Your task to perform on an android device: toggle location history Image 0: 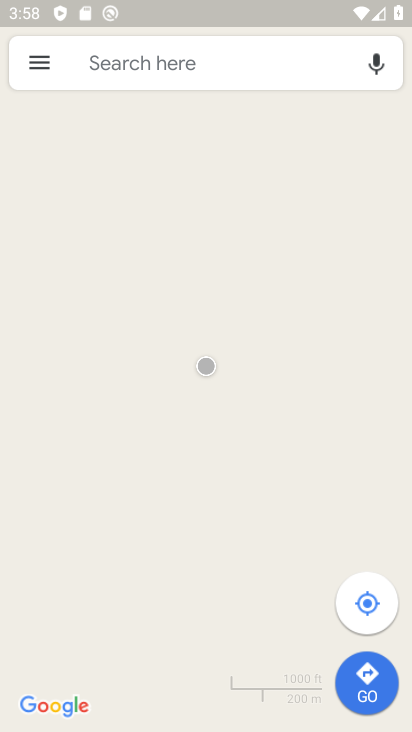
Step 0: press home button
Your task to perform on an android device: toggle location history Image 1: 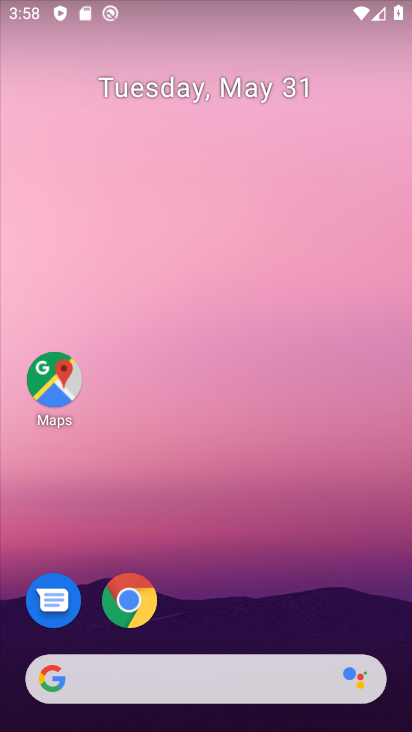
Step 1: drag from (257, 599) to (229, 144)
Your task to perform on an android device: toggle location history Image 2: 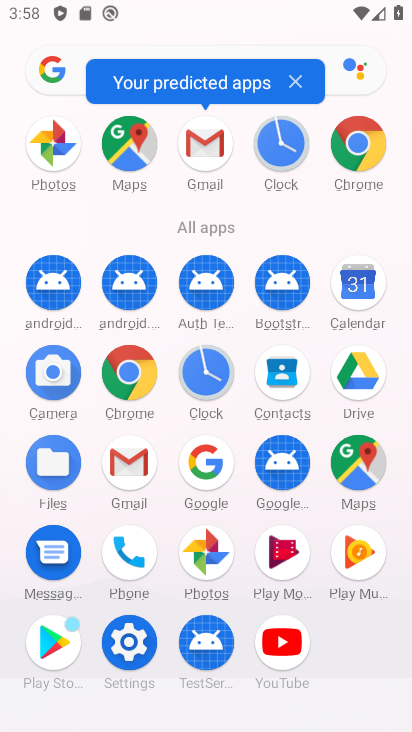
Step 2: click (132, 641)
Your task to perform on an android device: toggle location history Image 3: 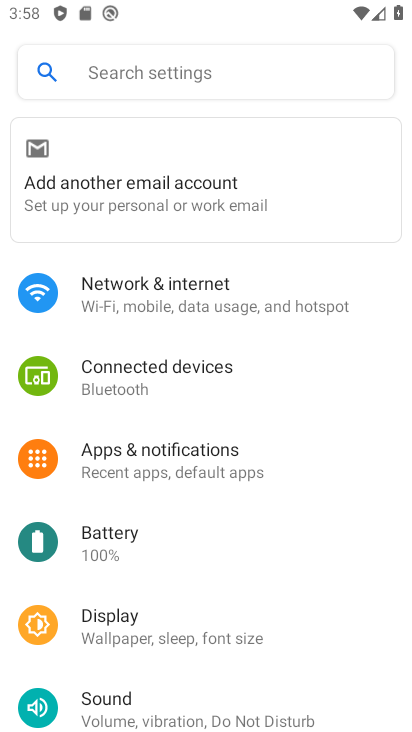
Step 3: drag from (154, 522) to (242, 377)
Your task to perform on an android device: toggle location history Image 4: 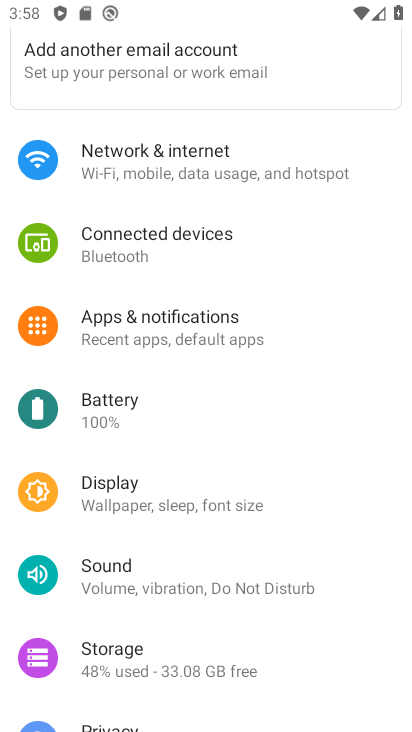
Step 4: drag from (174, 535) to (242, 351)
Your task to perform on an android device: toggle location history Image 5: 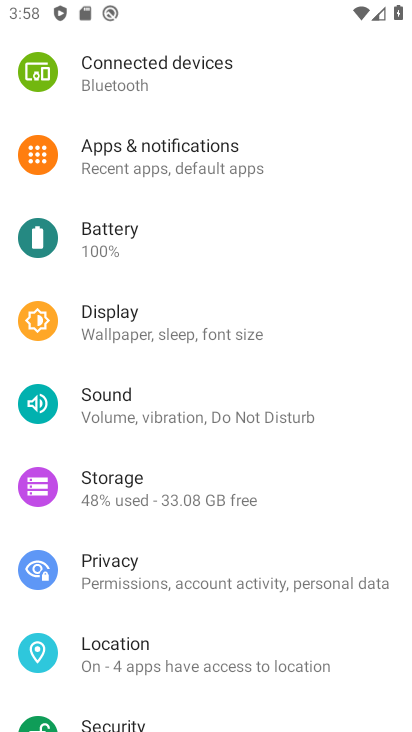
Step 5: click (129, 651)
Your task to perform on an android device: toggle location history Image 6: 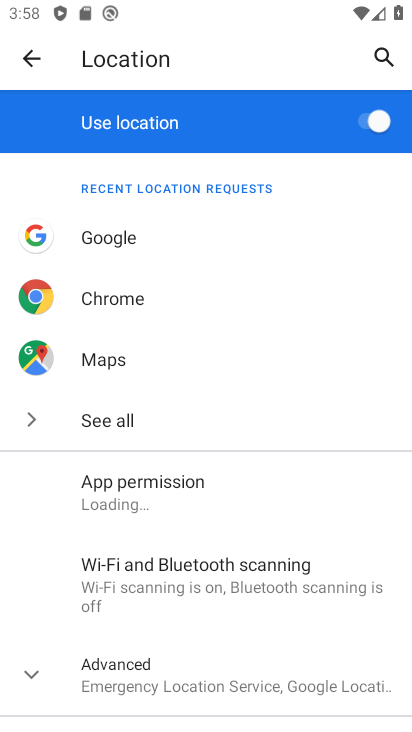
Step 6: click (131, 681)
Your task to perform on an android device: toggle location history Image 7: 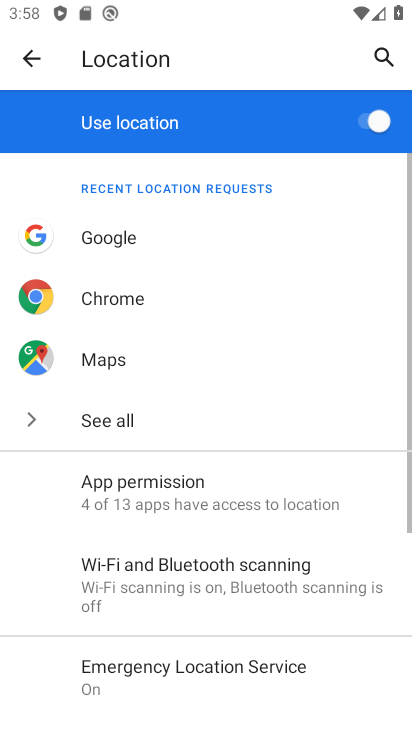
Step 7: drag from (165, 644) to (292, 387)
Your task to perform on an android device: toggle location history Image 8: 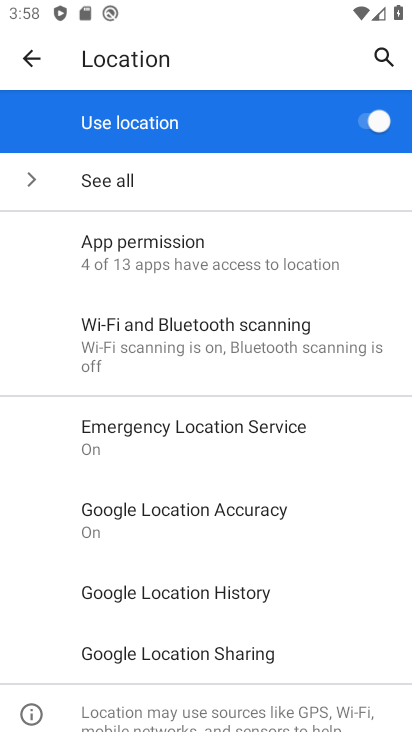
Step 8: click (214, 597)
Your task to perform on an android device: toggle location history Image 9: 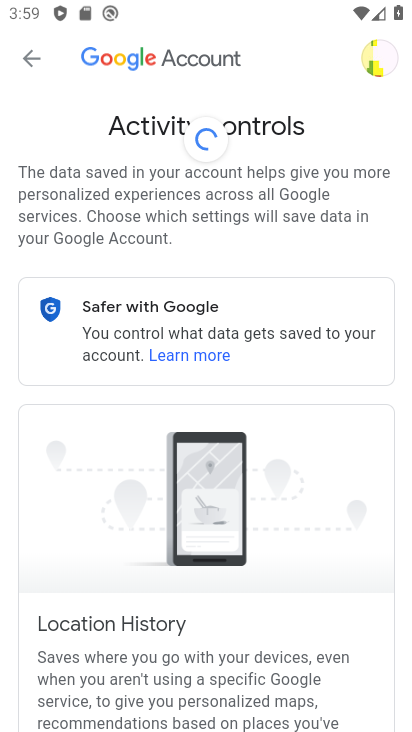
Step 9: drag from (139, 557) to (292, 342)
Your task to perform on an android device: toggle location history Image 10: 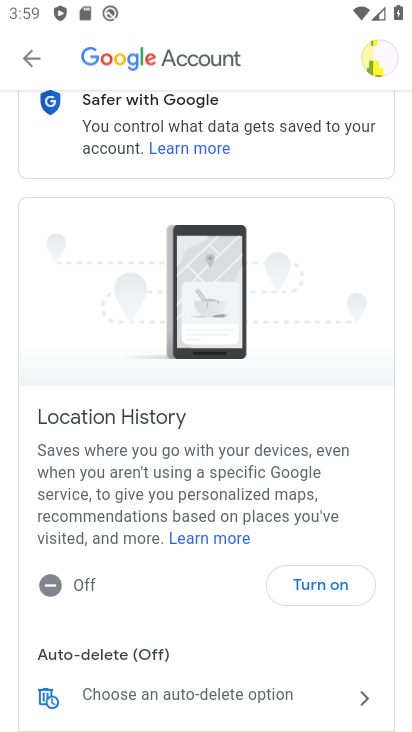
Step 10: click (313, 585)
Your task to perform on an android device: toggle location history Image 11: 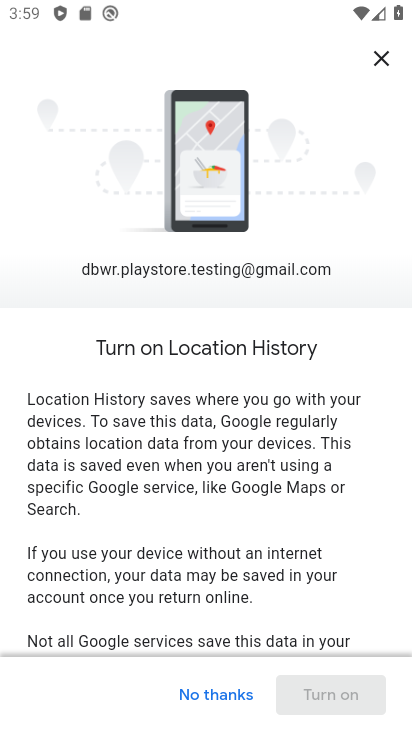
Step 11: drag from (262, 599) to (287, 482)
Your task to perform on an android device: toggle location history Image 12: 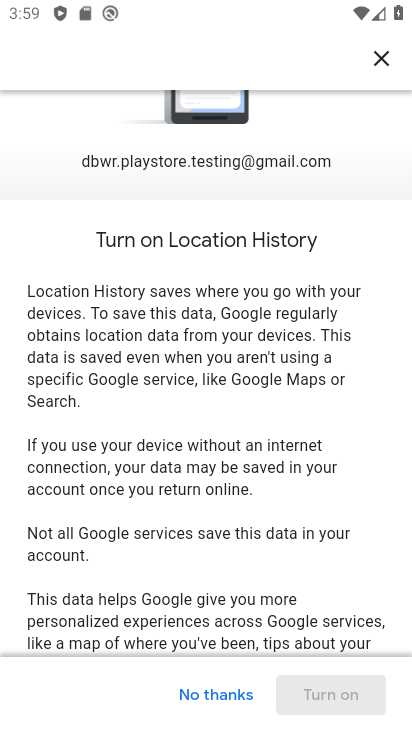
Step 12: drag from (255, 568) to (346, 408)
Your task to perform on an android device: toggle location history Image 13: 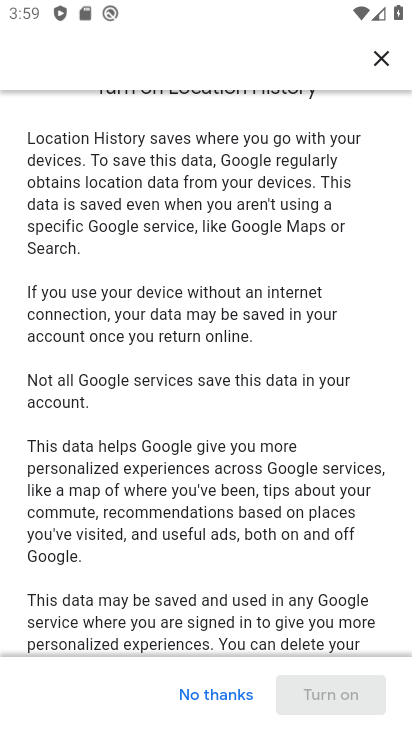
Step 13: drag from (256, 572) to (261, 409)
Your task to perform on an android device: toggle location history Image 14: 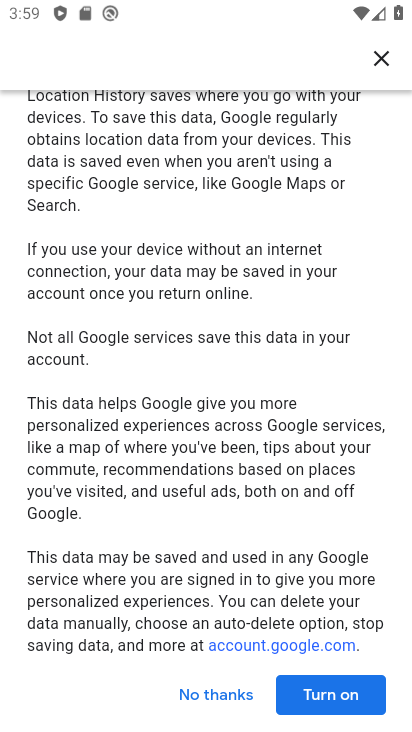
Step 14: click (335, 701)
Your task to perform on an android device: toggle location history Image 15: 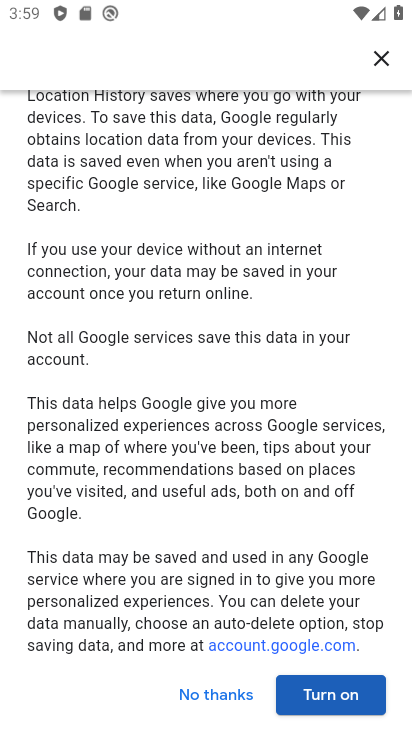
Step 15: click (335, 701)
Your task to perform on an android device: toggle location history Image 16: 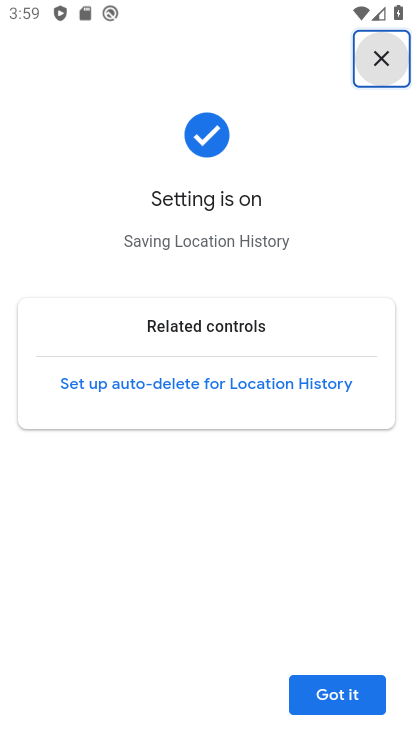
Step 16: click (328, 692)
Your task to perform on an android device: toggle location history Image 17: 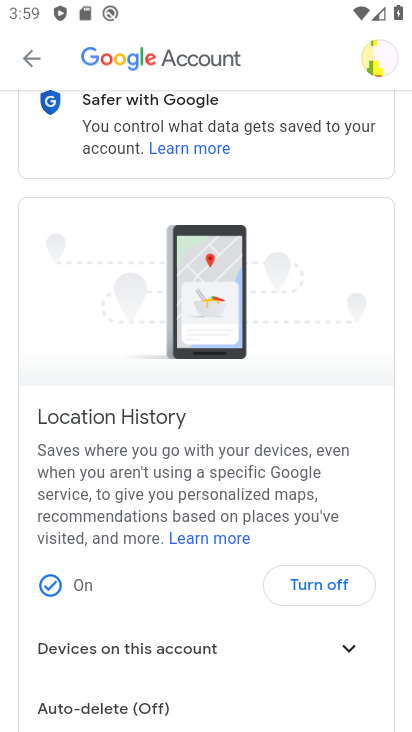
Step 17: task complete